Your task to perform on an android device: Open location settings Image 0: 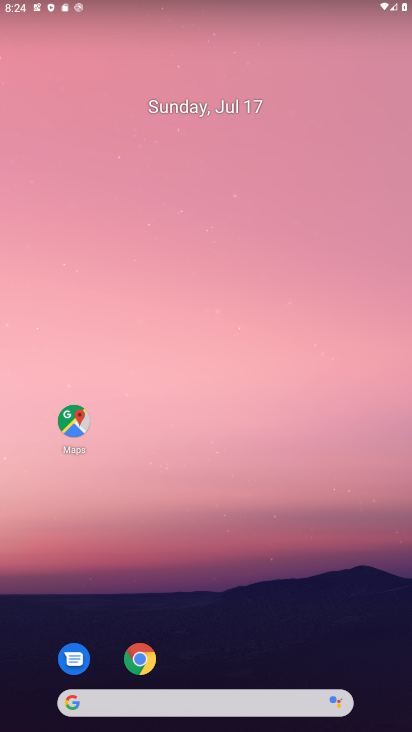
Step 0: drag from (232, 657) to (240, 140)
Your task to perform on an android device: Open location settings Image 1: 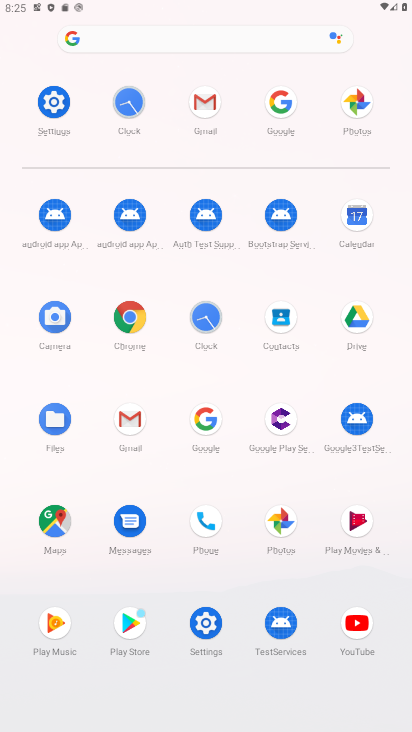
Step 1: click (73, 118)
Your task to perform on an android device: Open location settings Image 2: 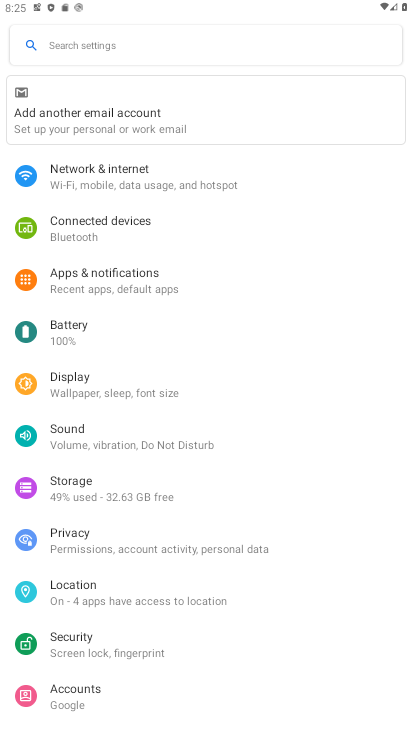
Step 2: click (89, 590)
Your task to perform on an android device: Open location settings Image 3: 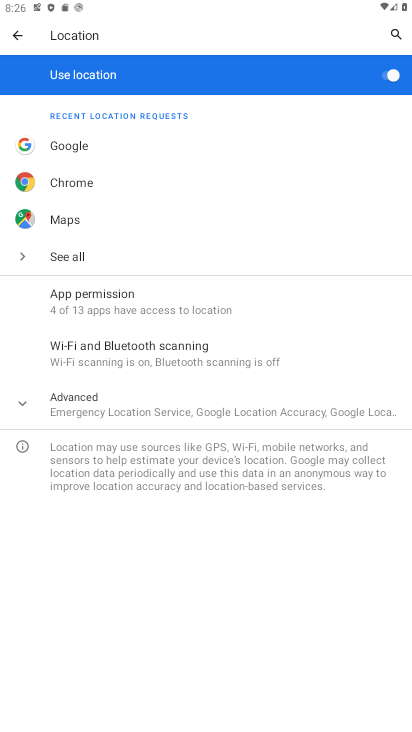
Step 3: task complete